Your task to perform on an android device: Open accessibility settings Image 0: 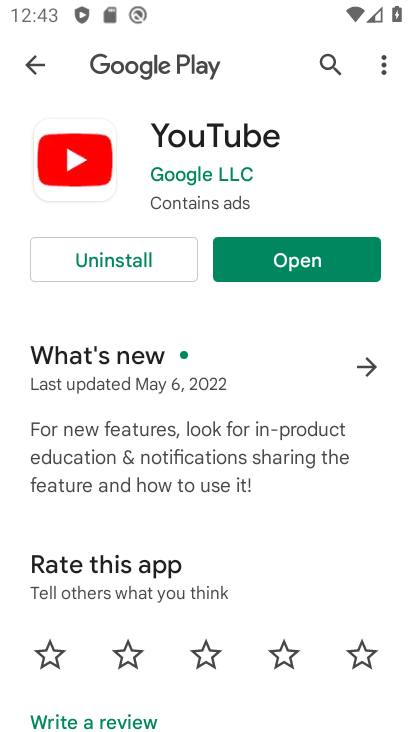
Step 0: press back button
Your task to perform on an android device: Open accessibility settings Image 1: 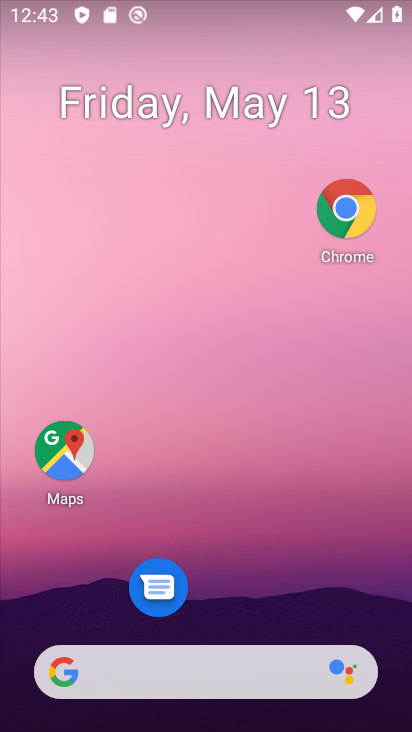
Step 1: drag from (267, 613) to (300, 84)
Your task to perform on an android device: Open accessibility settings Image 2: 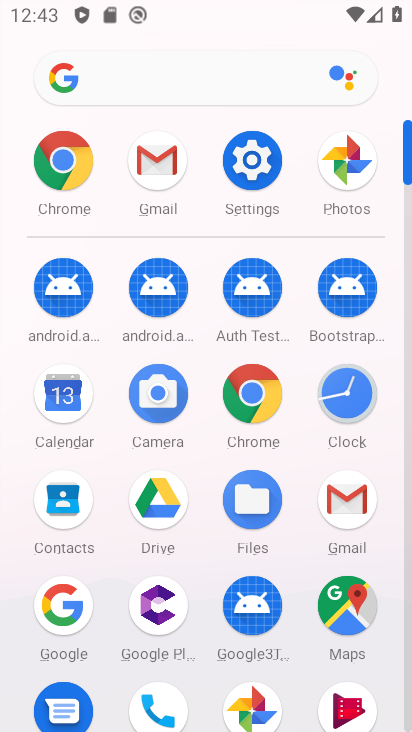
Step 2: click (256, 161)
Your task to perform on an android device: Open accessibility settings Image 3: 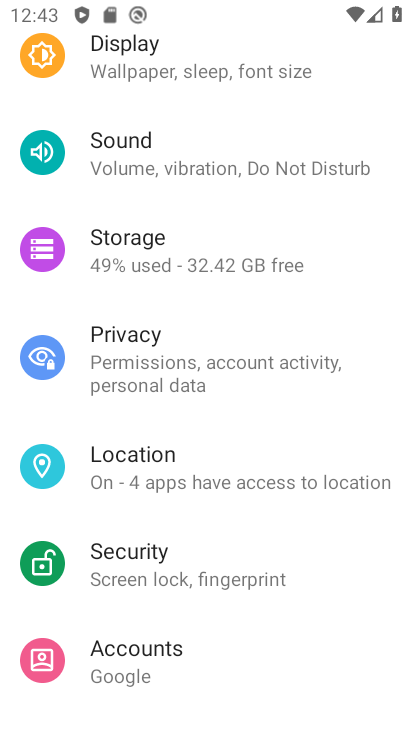
Step 3: drag from (153, 600) to (248, 66)
Your task to perform on an android device: Open accessibility settings Image 4: 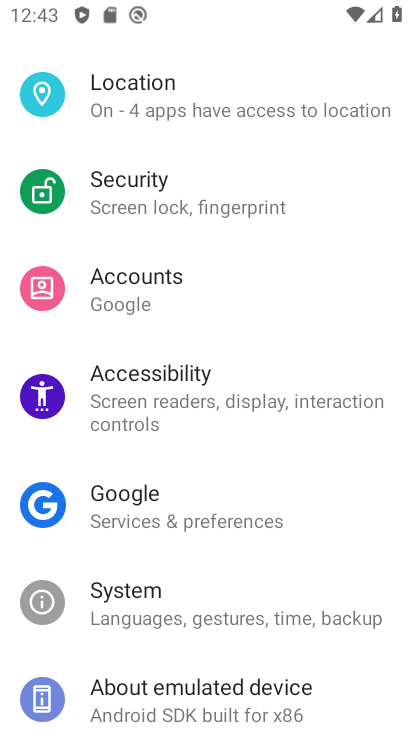
Step 4: click (165, 385)
Your task to perform on an android device: Open accessibility settings Image 5: 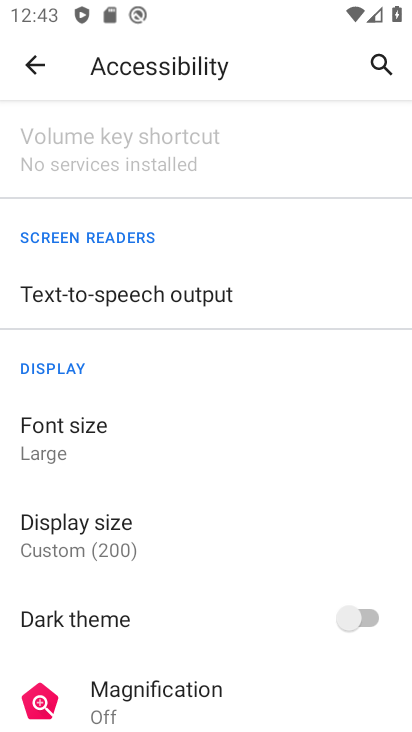
Step 5: task complete